Your task to perform on an android device: turn notification dots off Image 0: 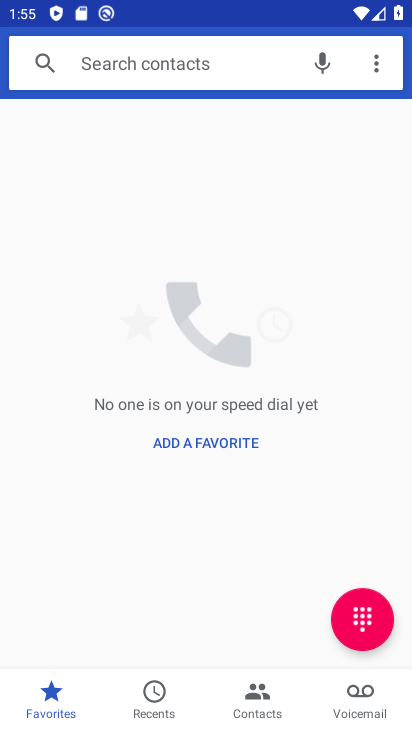
Step 0: press back button
Your task to perform on an android device: turn notification dots off Image 1: 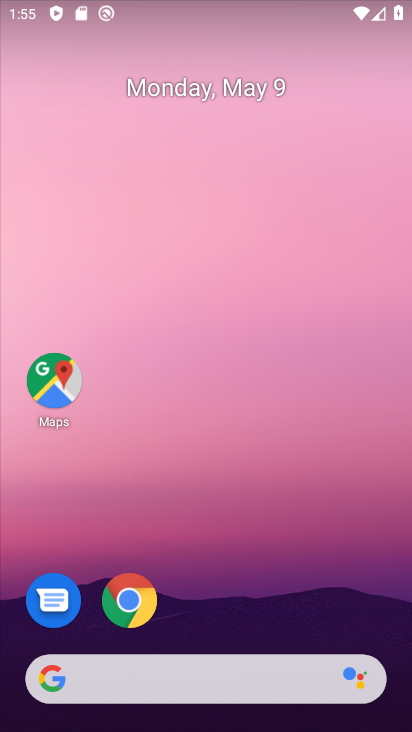
Step 1: drag from (247, 560) to (202, 0)
Your task to perform on an android device: turn notification dots off Image 2: 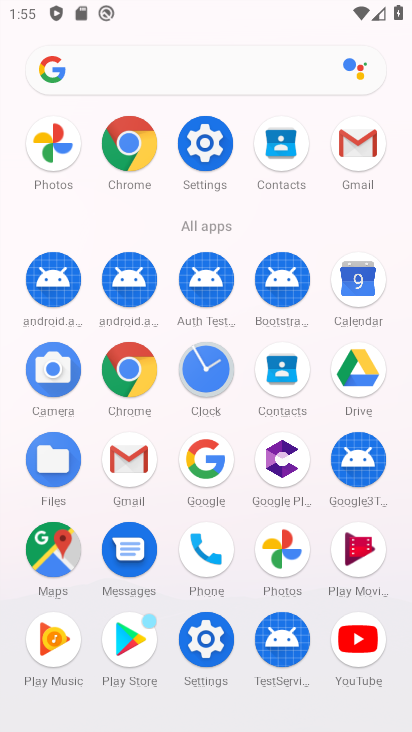
Step 2: drag from (1, 621) to (0, 283)
Your task to perform on an android device: turn notification dots off Image 3: 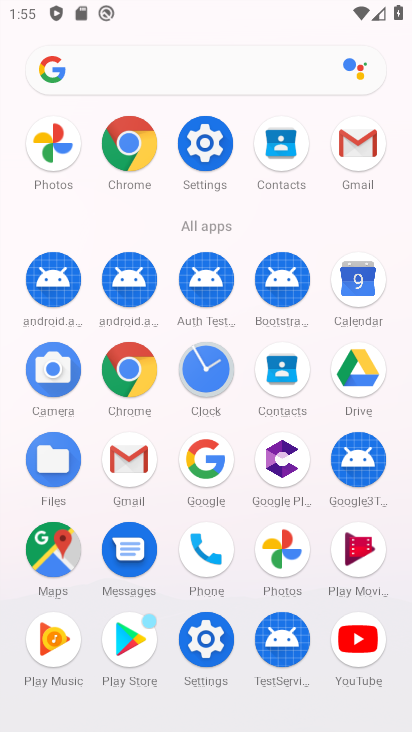
Step 3: click (203, 636)
Your task to perform on an android device: turn notification dots off Image 4: 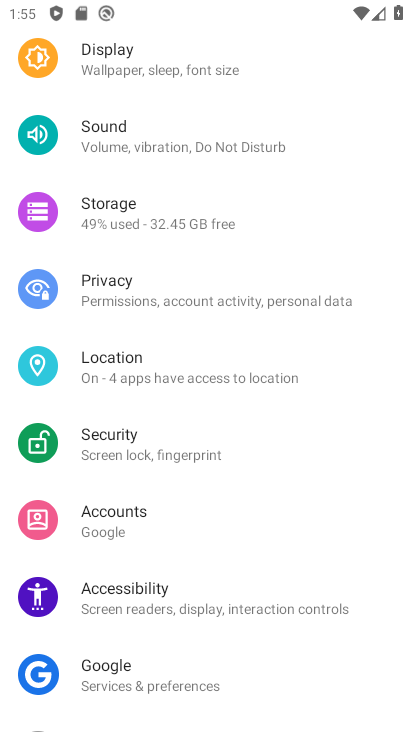
Step 4: drag from (292, 239) to (292, 612)
Your task to perform on an android device: turn notification dots off Image 5: 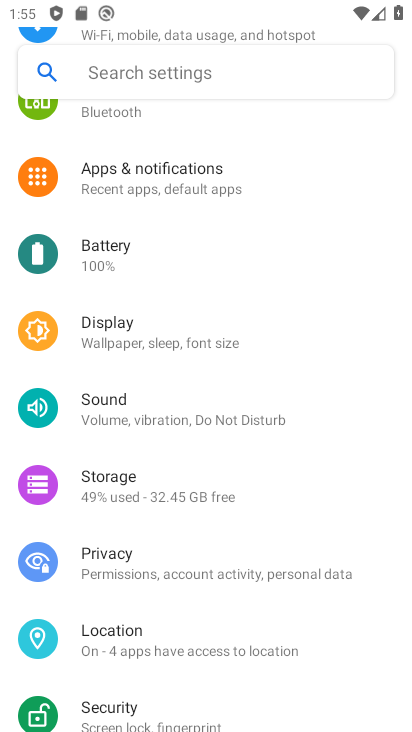
Step 5: drag from (280, 272) to (279, 595)
Your task to perform on an android device: turn notification dots off Image 6: 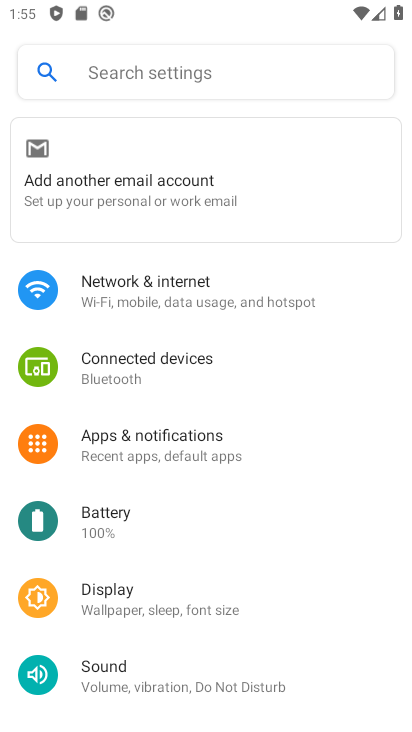
Step 6: click (206, 446)
Your task to perform on an android device: turn notification dots off Image 7: 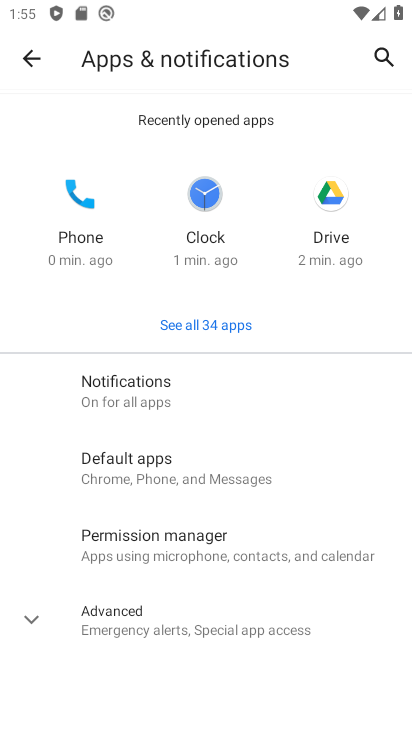
Step 7: click (52, 631)
Your task to perform on an android device: turn notification dots off Image 8: 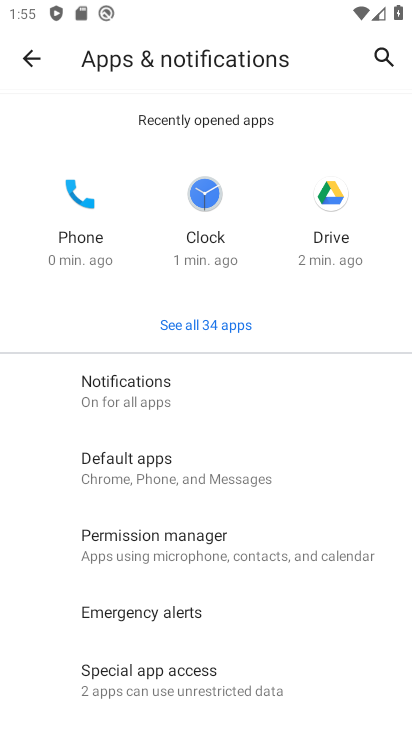
Step 8: click (216, 391)
Your task to perform on an android device: turn notification dots off Image 9: 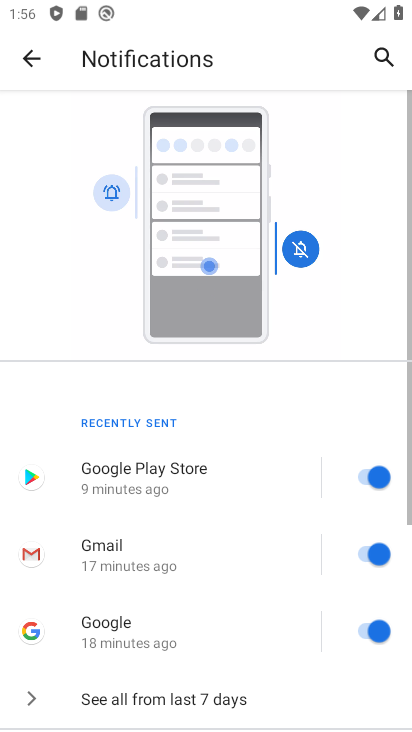
Step 9: drag from (252, 592) to (277, 101)
Your task to perform on an android device: turn notification dots off Image 10: 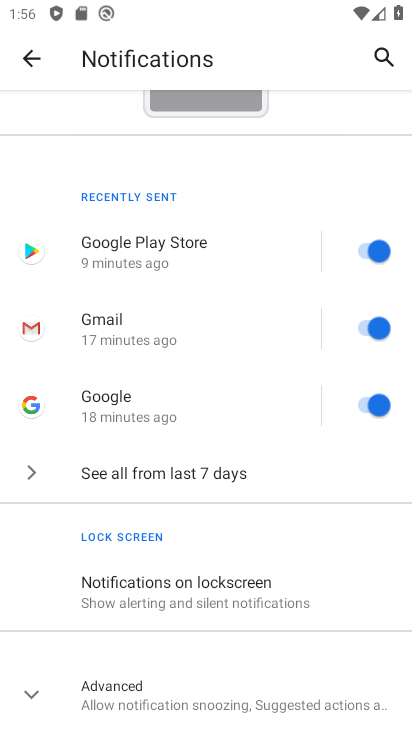
Step 10: drag from (235, 595) to (239, 184)
Your task to perform on an android device: turn notification dots off Image 11: 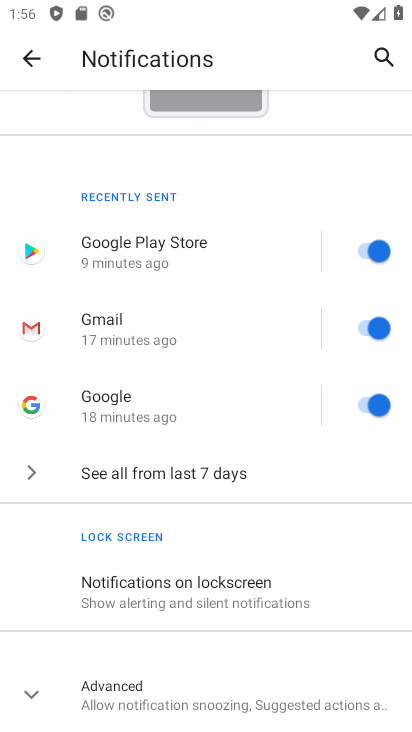
Step 11: click (43, 691)
Your task to perform on an android device: turn notification dots off Image 12: 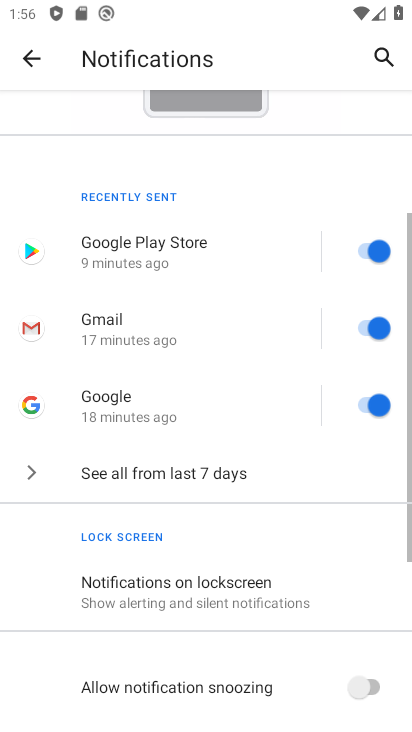
Step 12: drag from (233, 635) to (264, 204)
Your task to perform on an android device: turn notification dots off Image 13: 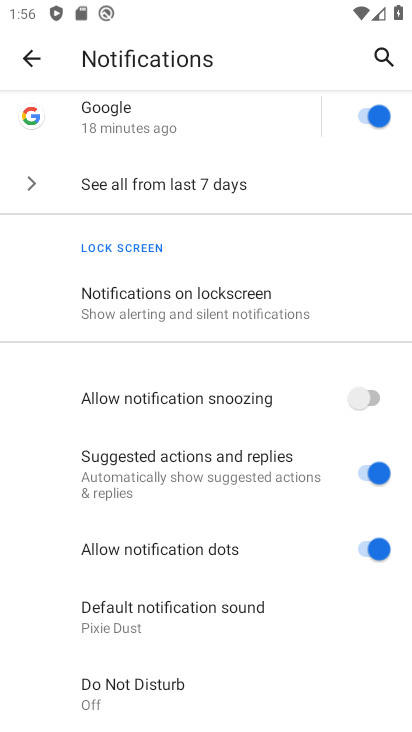
Step 13: click (371, 533)
Your task to perform on an android device: turn notification dots off Image 14: 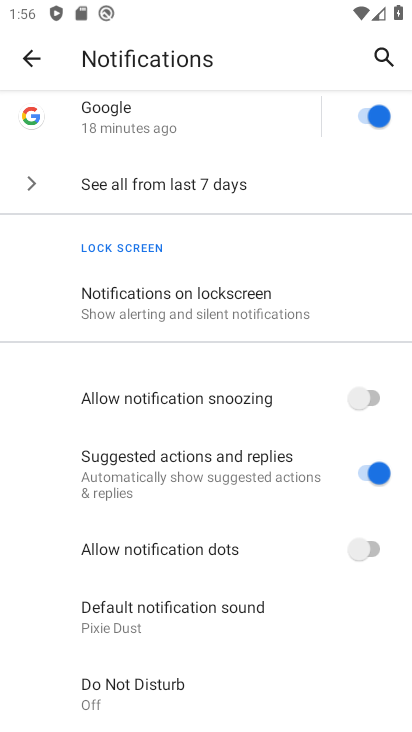
Step 14: task complete